Your task to perform on an android device: Search for vegetarian restaurants on Maps Image 0: 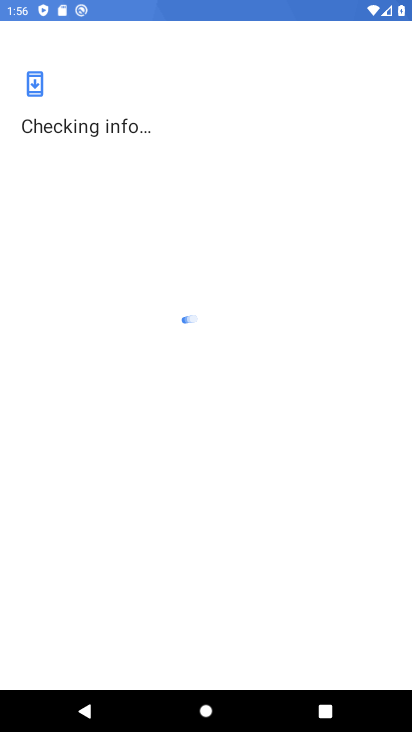
Step 0: press home button
Your task to perform on an android device: Search for vegetarian restaurants on Maps Image 1: 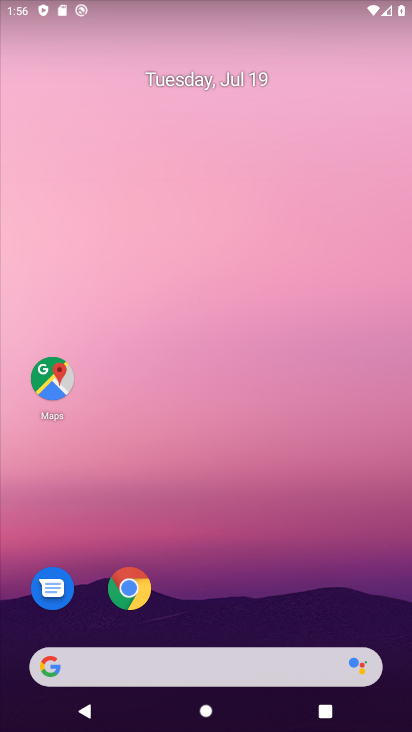
Step 1: drag from (167, 640) to (247, 126)
Your task to perform on an android device: Search for vegetarian restaurants on Maps Image 2: 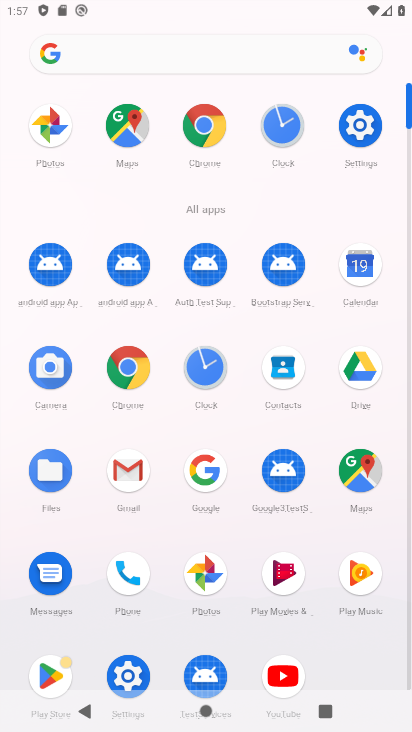
Step 2: click (363, 478)
Your task to perform on an android device: Search for vegetarian restaurants on Maps Image 3: 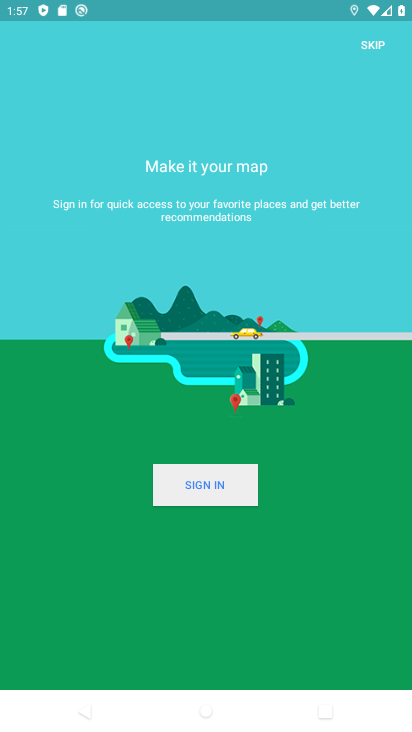
Step 3: click (359, 44)
Your task to perform on an android device: Search for vegetarian restaurants on Maps Image 4: 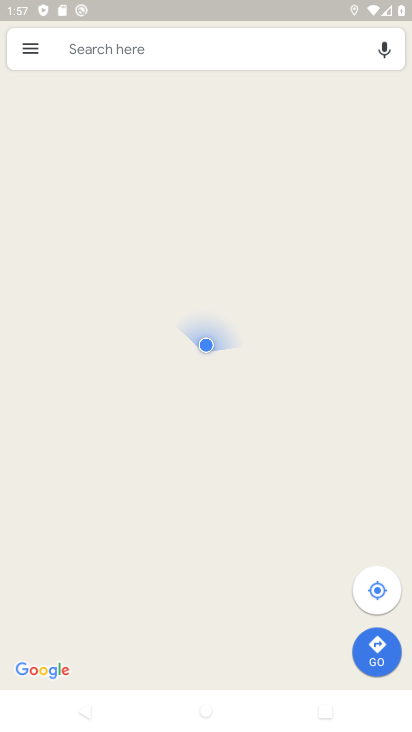
Step 4: click (168, 57)
Your task to perform on an android device: Search for vegetarian restaurants on Maps Image 5: 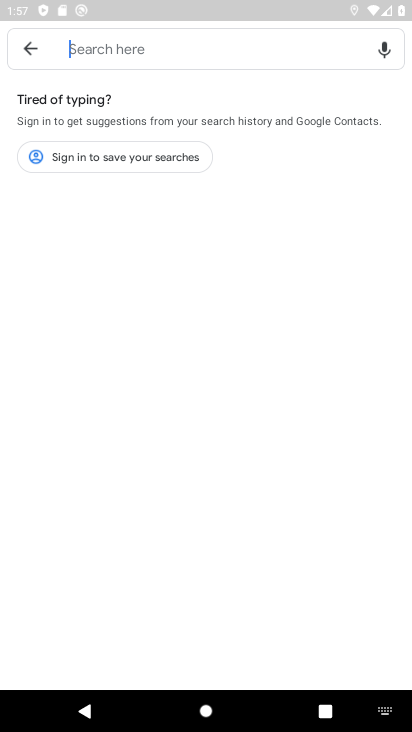
Step 5: type "Vegetarian restaurants"
Your task to perform on an android device: Search for vegetarian restaurants on Maps Image 6: 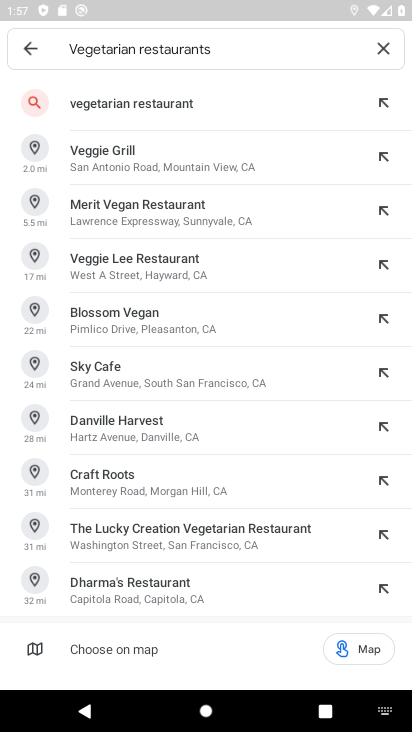
Step 6: click (174, 106)
Your task to perform on an android device: Search for vegetarian restaurants on Maps Image 7: 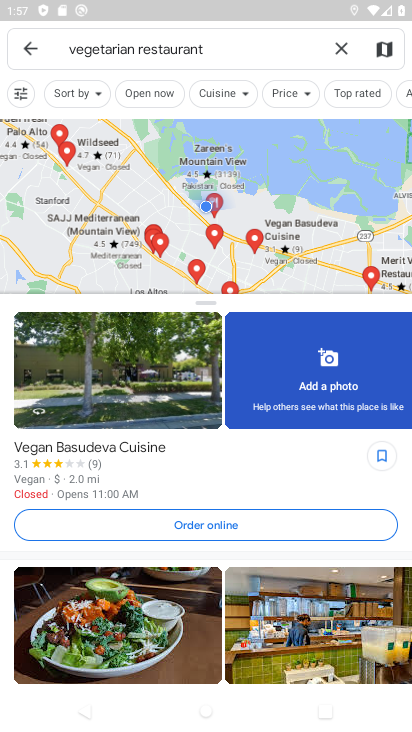
Step 7: task complete